Your task to perform on an android device: Search for pizza restaurants on Maps Image 0: 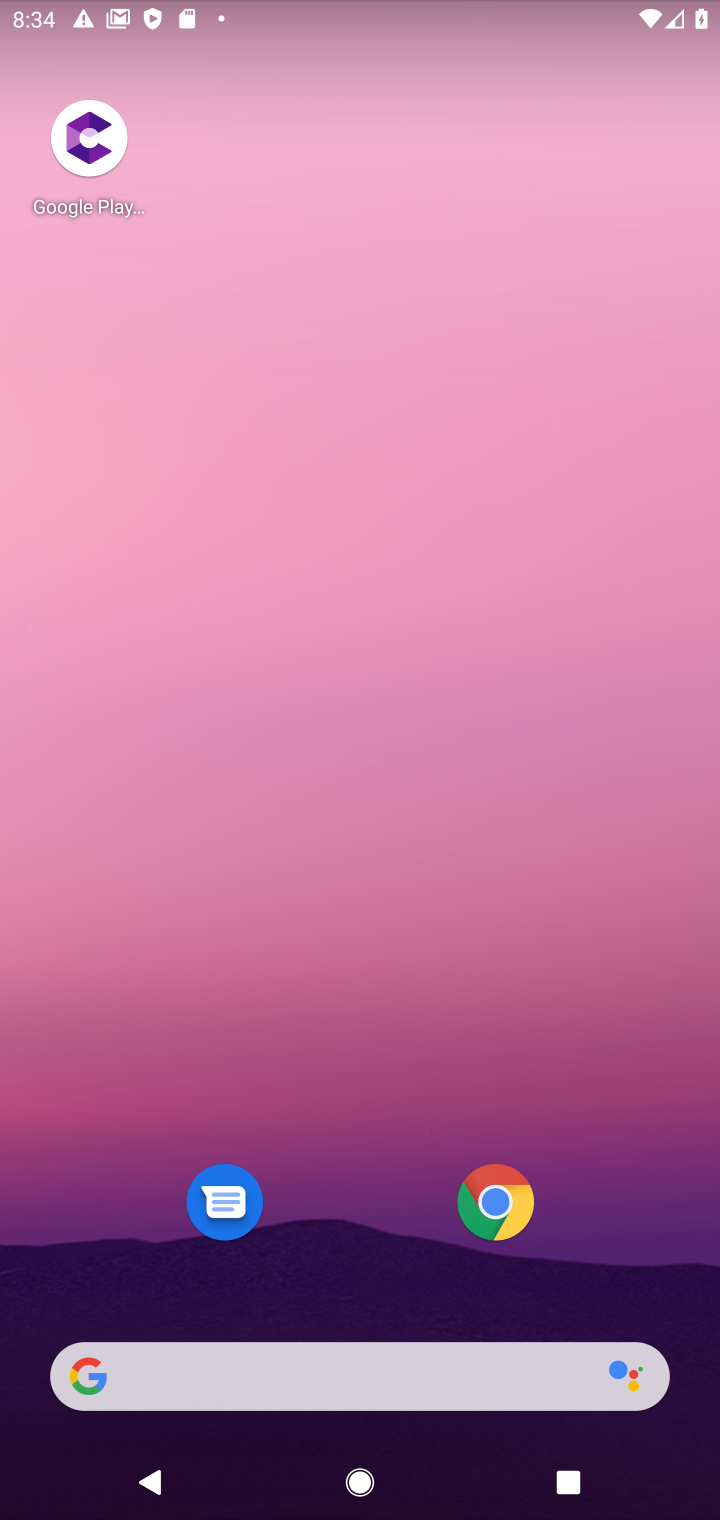
Step 0: drag from (337, 1282) to (643, 31)
Your task to perform on an android device: Search for pizza restaurants on Maps Image 1: 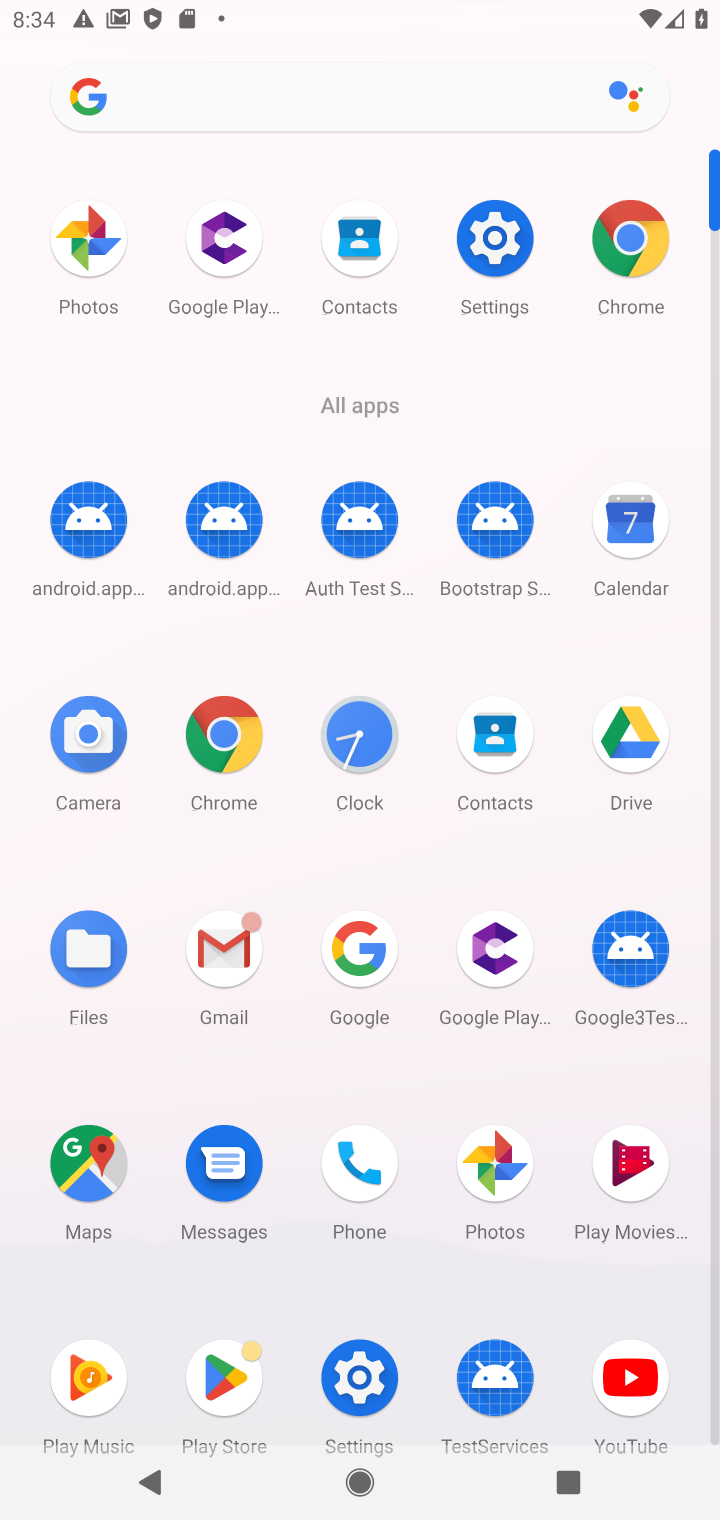
Step 1: click (89, 1139)
Your task to perform on an android device: Search for pizza restaurants on Maps Image 2: 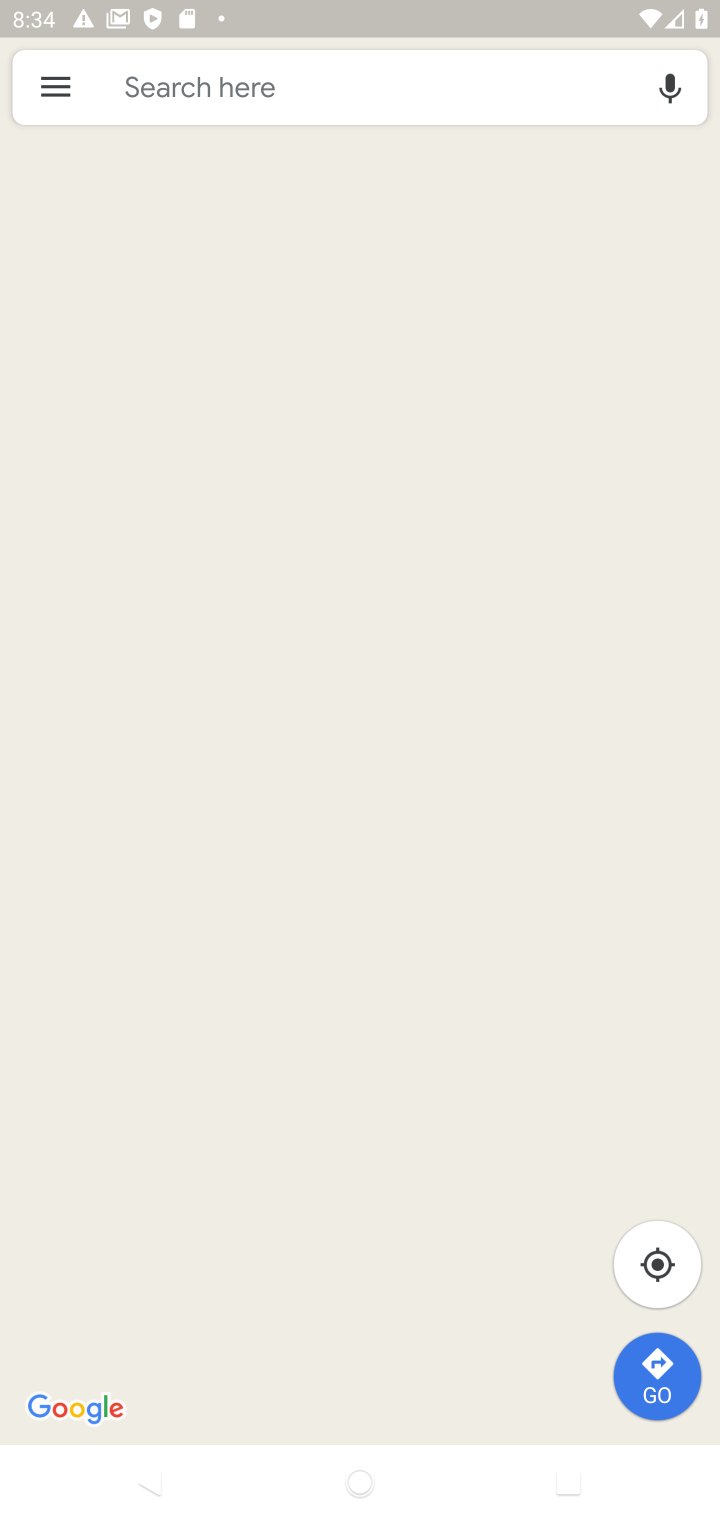
Step 2: click (319, 85)
Your task to perform on an android device: Search for pizza restaurants on Maps Image 3: 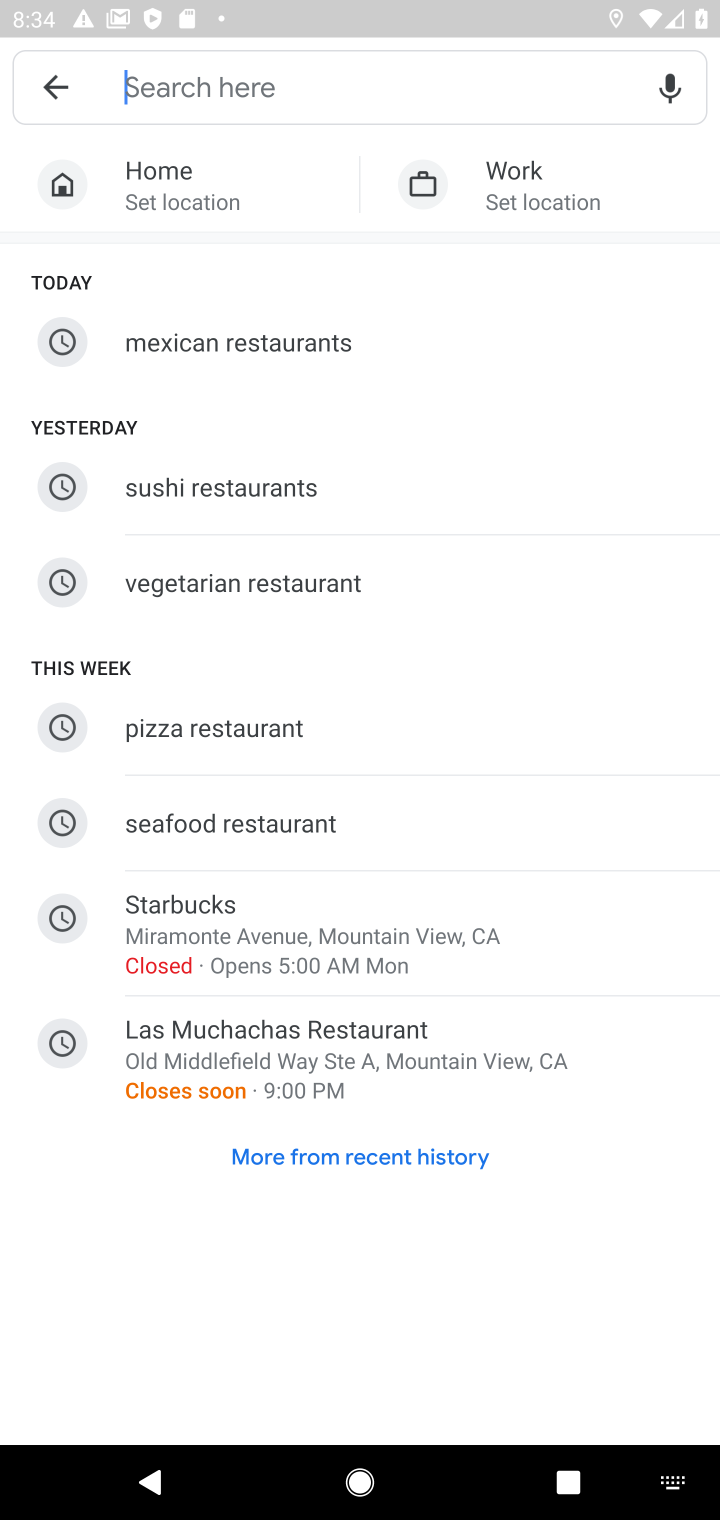
Step 3: type "pizza restaurants"
Your task to perform on an android device: Search for pizza restaurants on Maps Image 4: 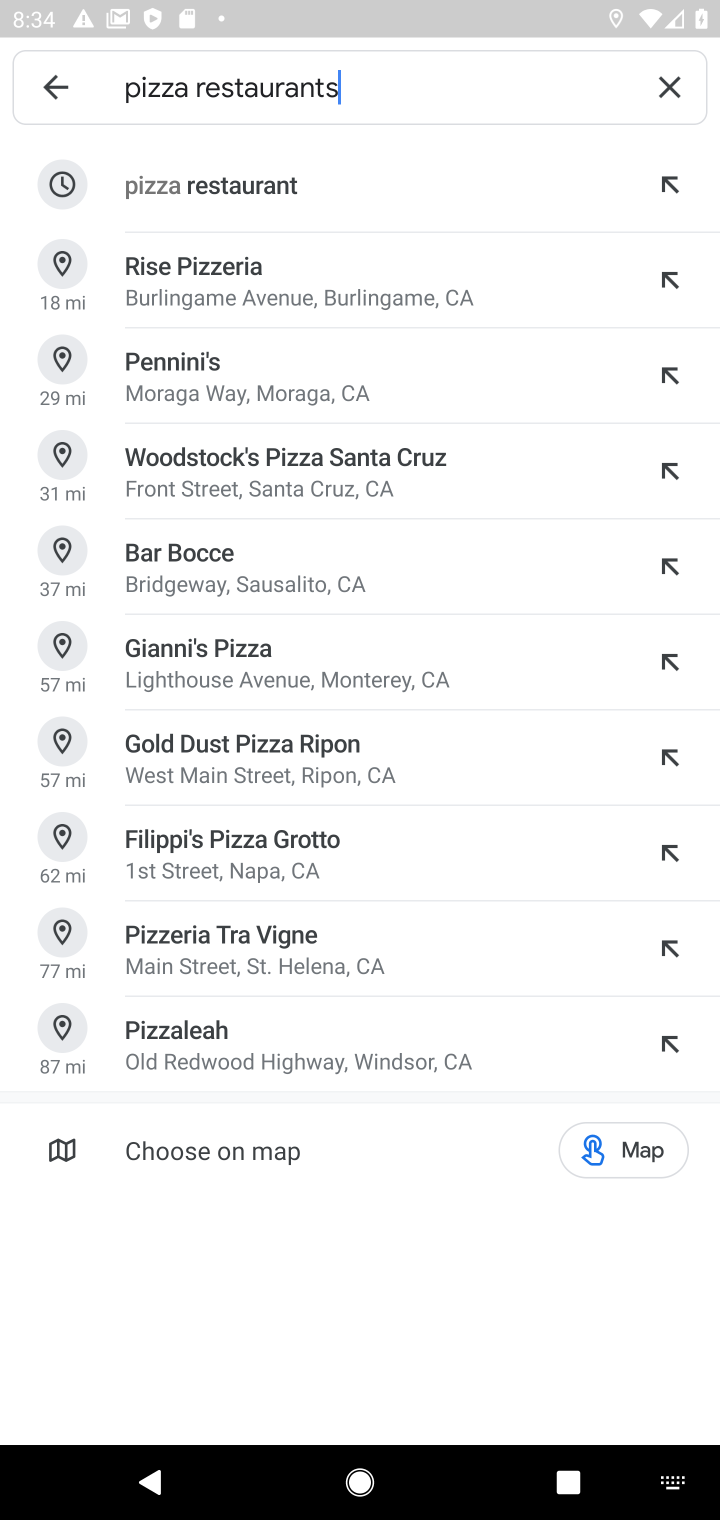
Step 4: click (397, 189)
Your task to perform on an android device: Search for pizza restaurants on Maps Image 5: 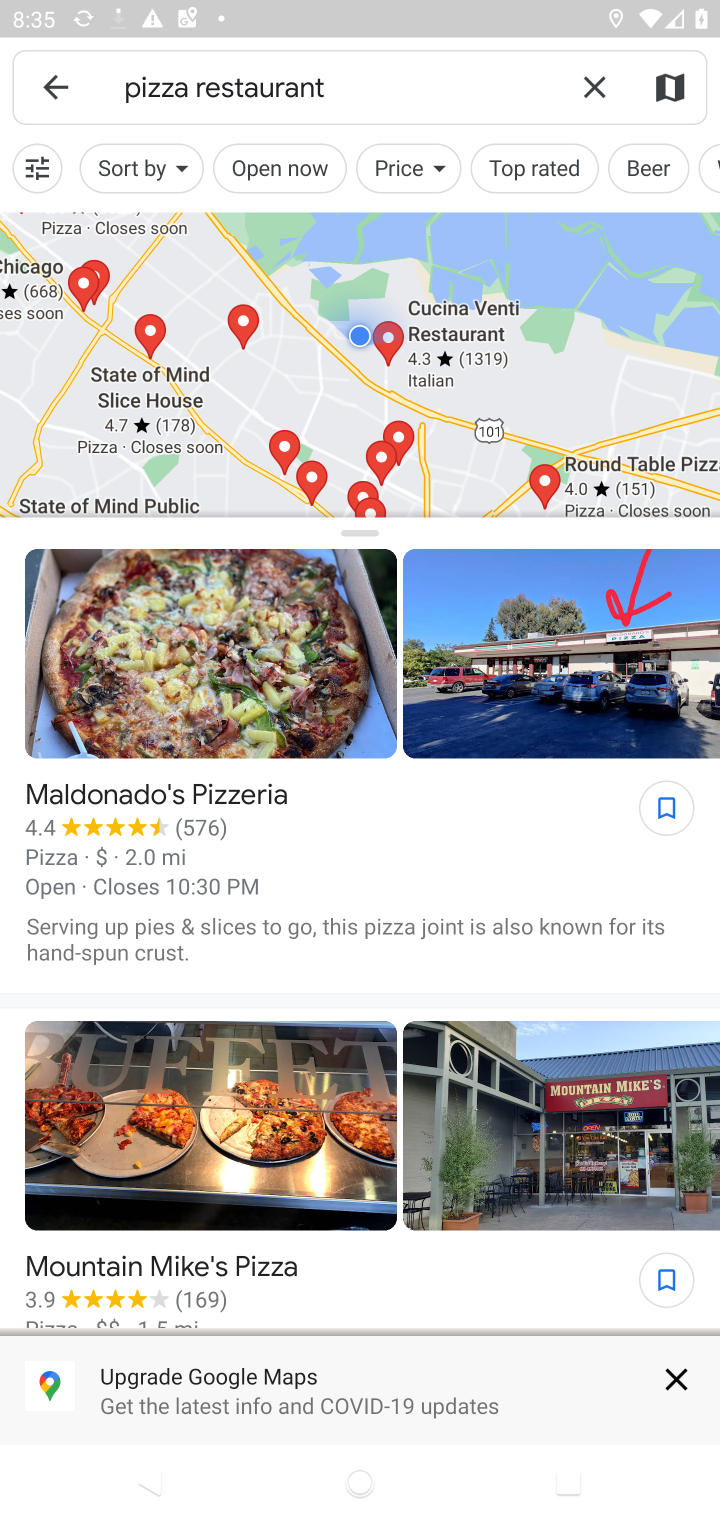
Step 5: task complete